Your task to perform on an android device: clear all cookies in the chrome app Image 0: 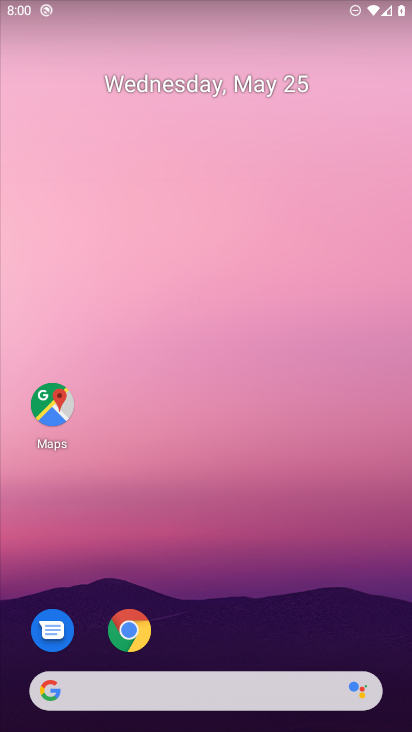
Step 0: click (135, 628)
Your task to perform on an android device: clear all cookies in the chrome app Image 1: 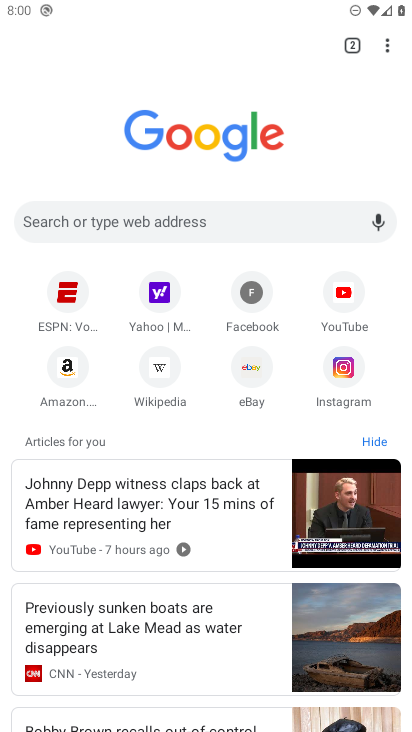
Step 1: click (383, 40)
Your task to perform on an android device: clear all cookies in the chrome app Image 2: 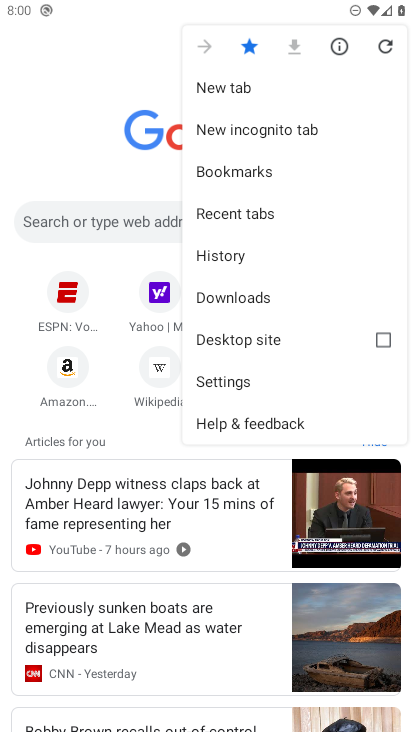
Step 2: click (247, 374)
Your task to perform on an android device: clear all cookies in the chrome app Image 3: 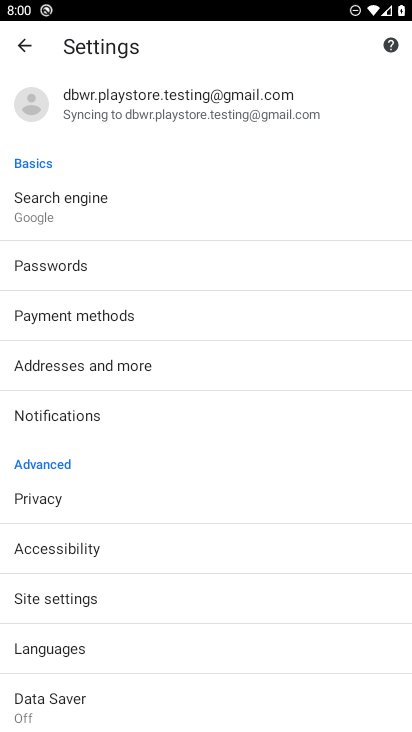
Step 3: click (48, 485)
Your task to perform on an android device: clear all cookies in the chrome app Image 4: 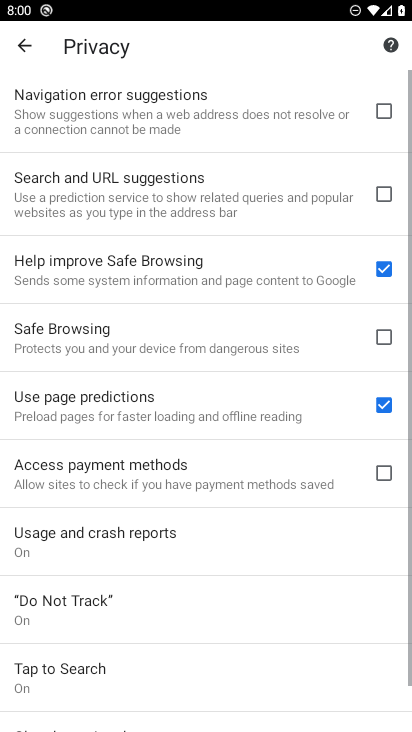
Step 4: drag from (165, 700) to (225, 278)
Your task to perform on an android device: clear all cookies in the chrome app Image 5: 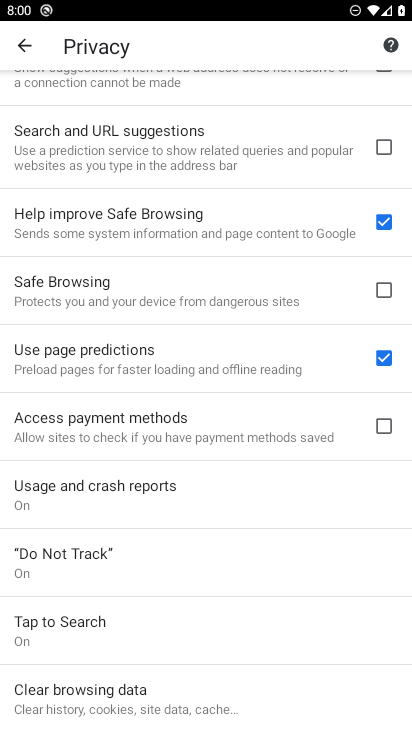
Step 5: click (135, 699)
Your task to perform on an android device: clear all cookies in the chrome app Image 6: 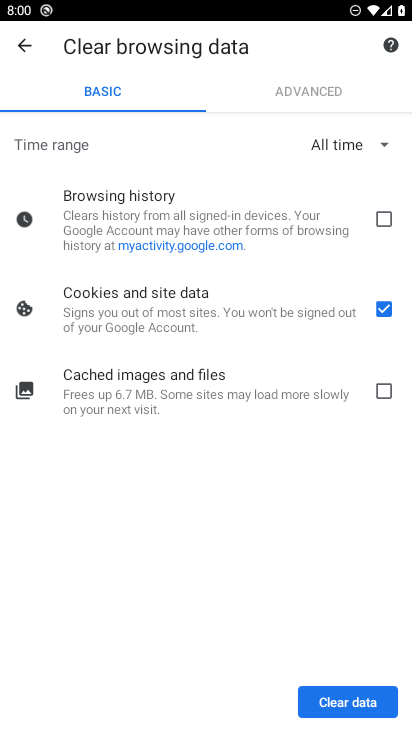
Step 6: click (359, 711)
Your task to perform on an android device: clear all cookies in the chrome app Image 7: 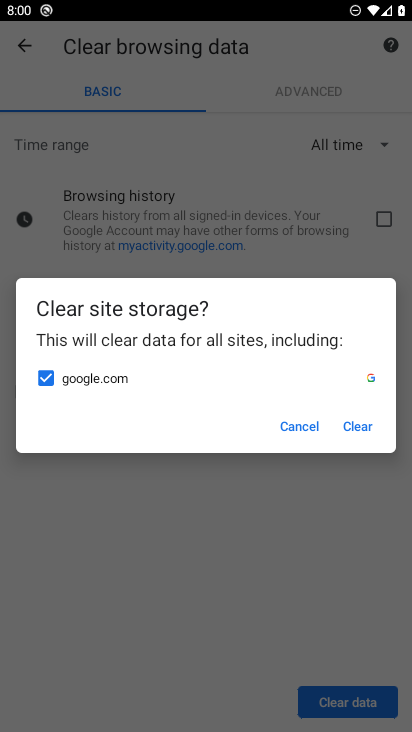
Step 7: click (361, 422)
Your task to perform on an android device: clear all cookies in the chrome app Image 8: 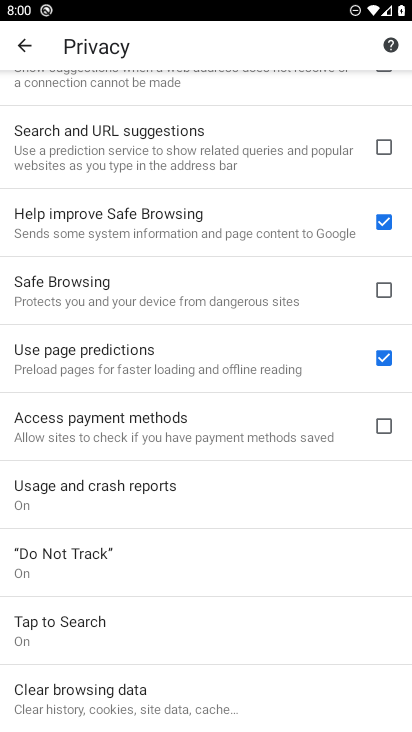
Step 8: task complete